Your task to perform on an android device: What's the weather going to be tomorrow? Image 0: 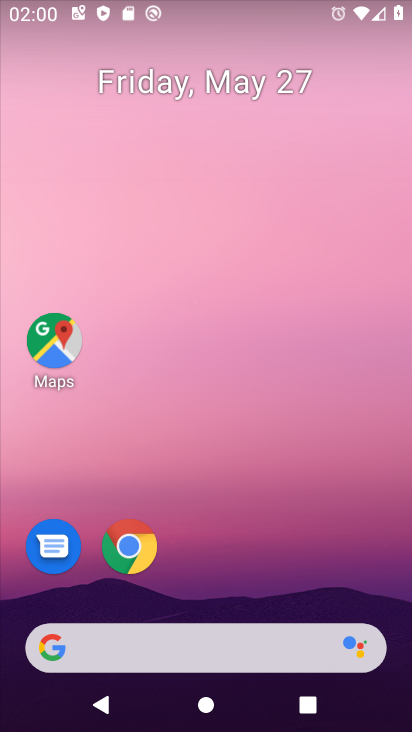
Step 0: press home button
Your task to perform on an android device: What's the weather going to be tomorrow? Image 1: 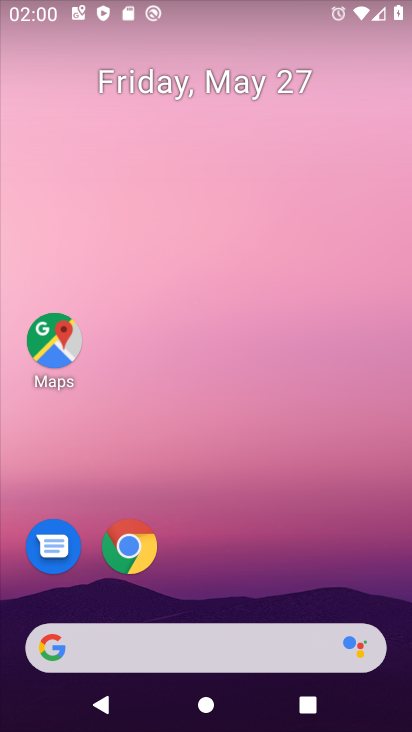
Step 1: drag from (223, 671) to (260, 177)
Your task to perform on an android device: What's the weather going to be tomorrow? Image 2: 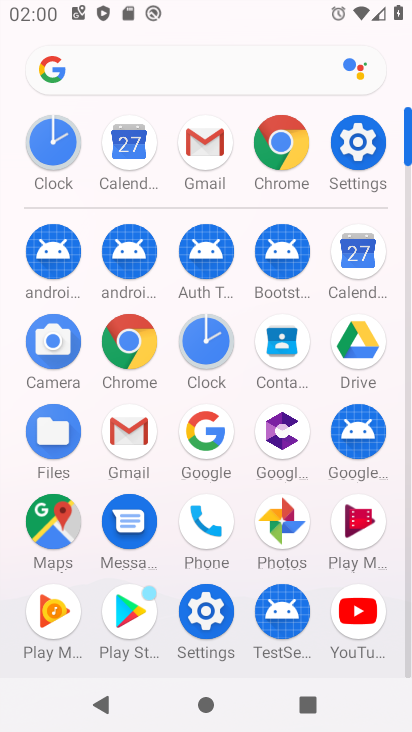
Step 2: click (131, 69)
Your task to perform on an android device: What's the weather going to be tomorrow? Image 3: 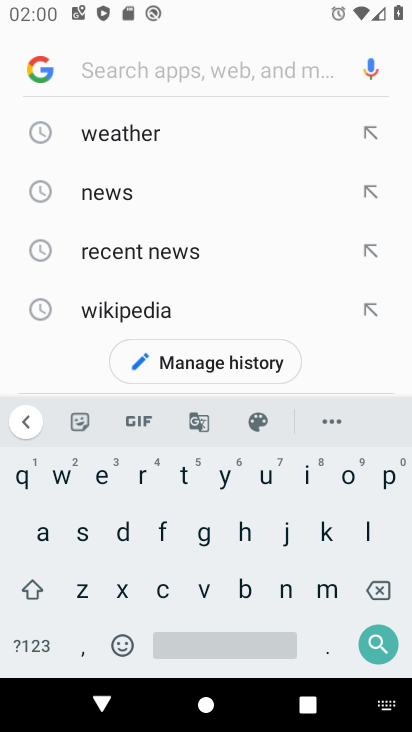
Step 3: click (135, 140)
Your task to perform on an android device: What's the weather going to be tomorrow? Image 4: 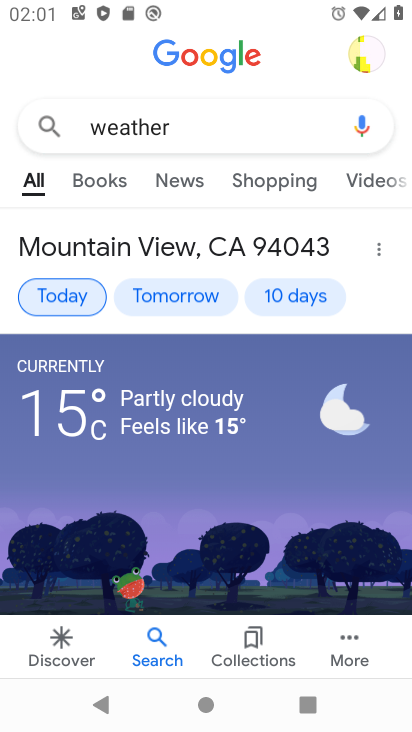
Step 4: click (200, 291)
Your task to perform on an android device: What's the weather going to be tomorrow? Image 5: 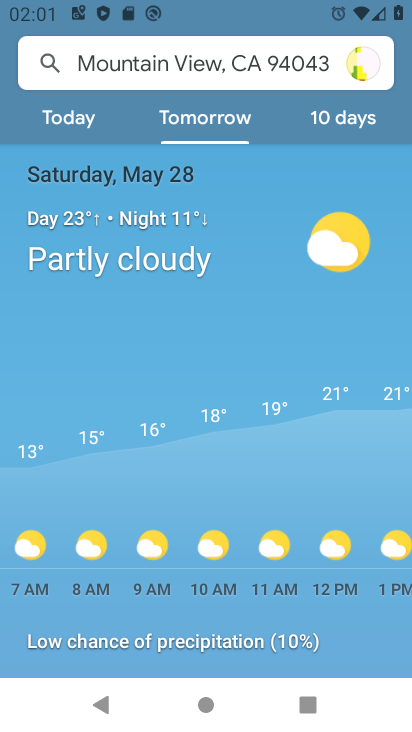
Step 5: task complete